Your task to perform on an android device: open a bookmark in the chrome app Image 0: 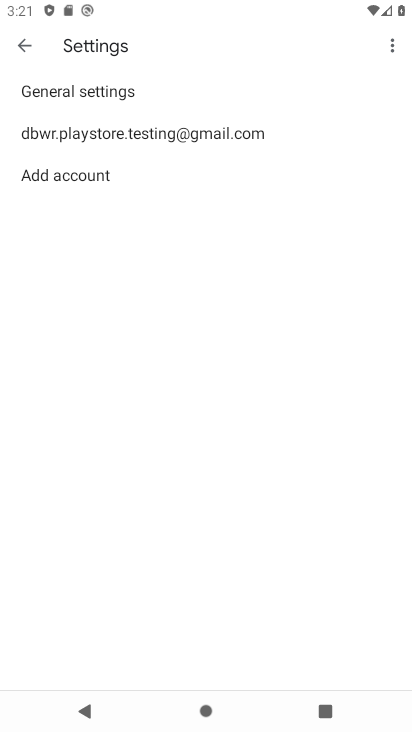
Step 0: press home button
Your task to perform on an android device: open a bookmark in the chrome app Image 1: 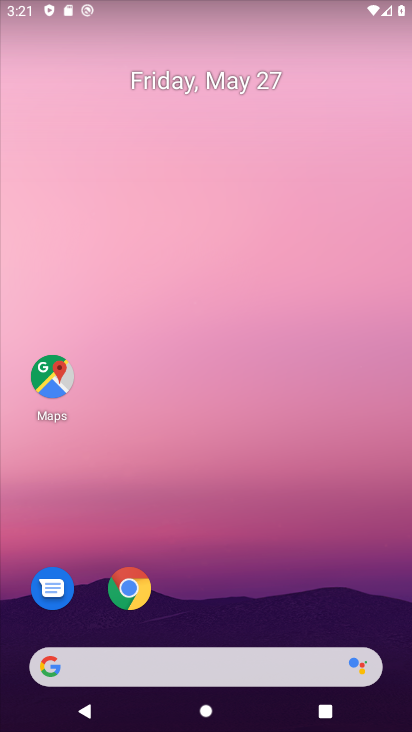
Step 1: click (133, 592)
Your task to perform on an android device: open a bookmark in the chrome app Image 2: 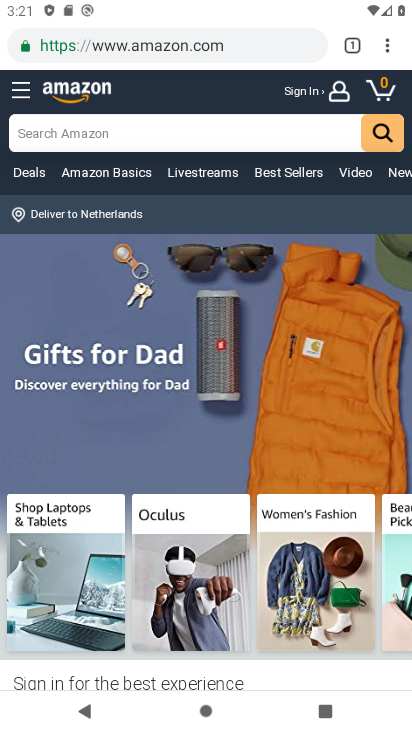
Step 2: task complete